Your task to perform on an android device: change notification settings in the gmail app Image 0: 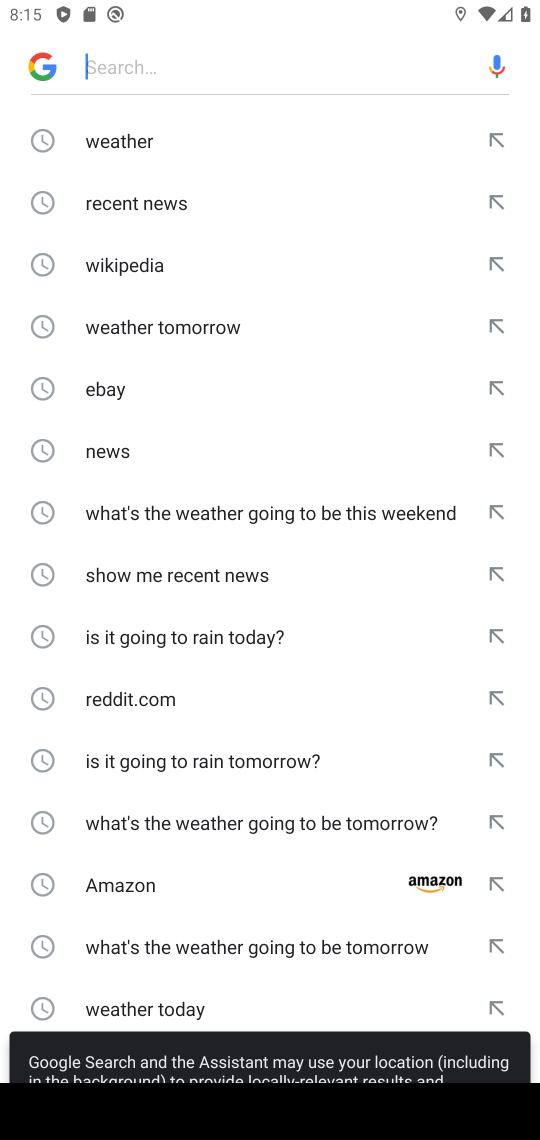
Step 0: press home button
Your task to perform on an android device: change notification settings in the gmail app Image 1: 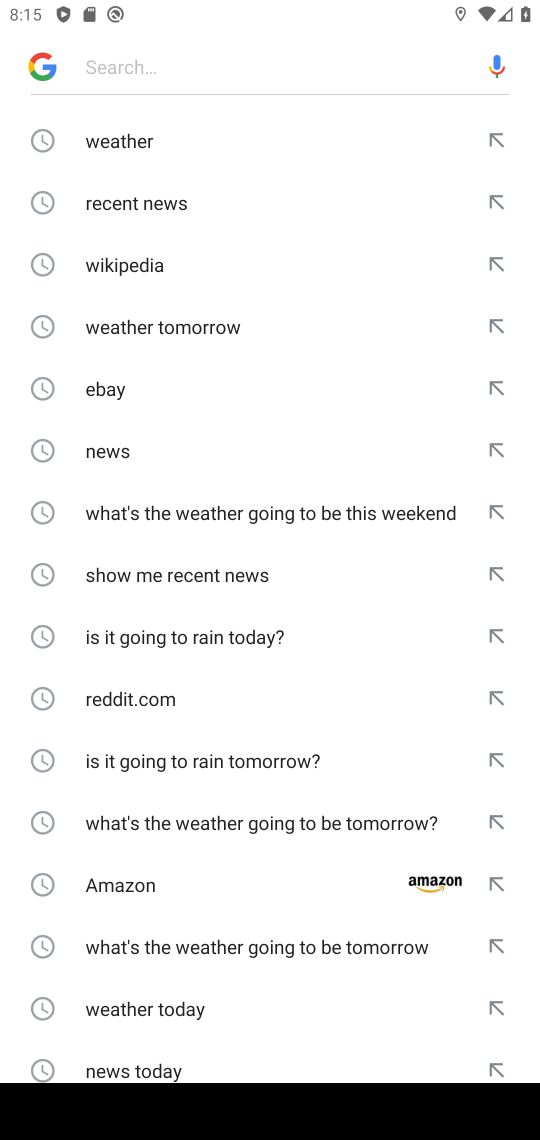
Step 1: click (294, 103)
Your task to perform on an android device: change notification settings in the gmail app Image 2: 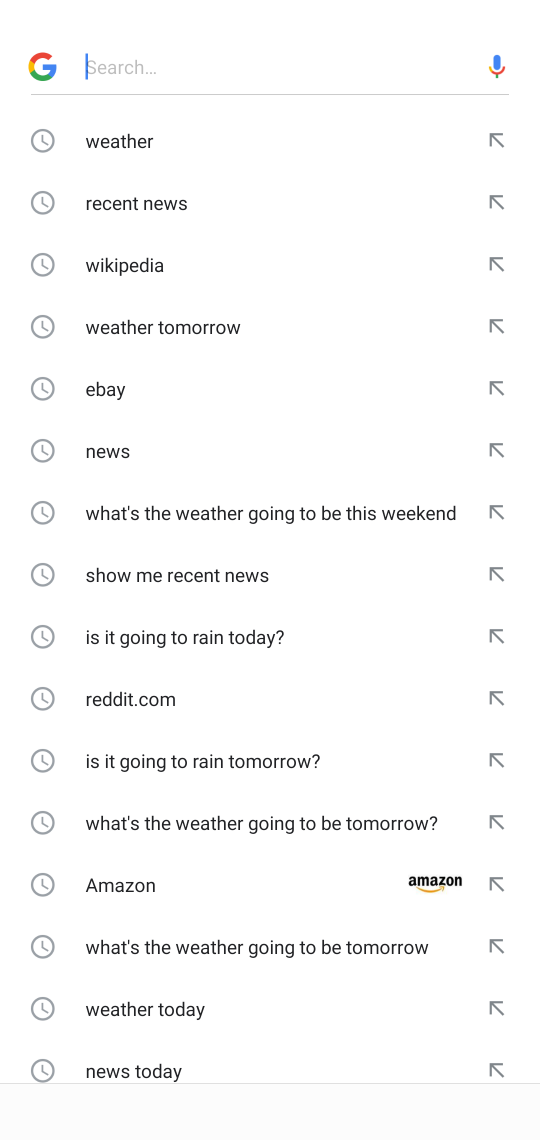
Step 2: drag from (255, 731) to (289, 234)
Your task to perform on an android device: change notification settings in the gmail app Image 3: 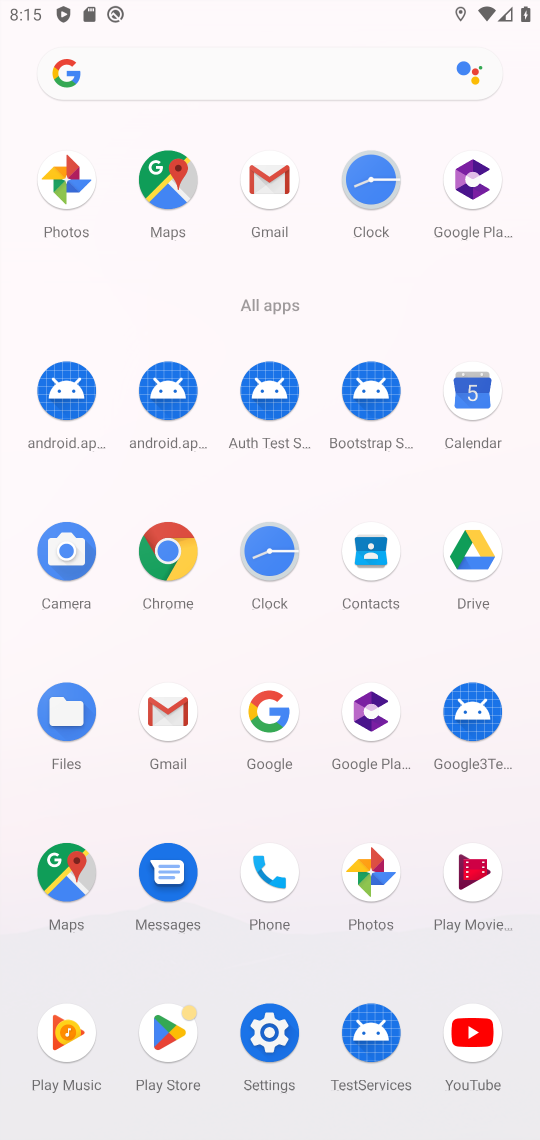
Step 3: drag from (279, 892) to (304, 330)
Your task to perform on an android device: change notification settings in the gmail app Image 4: 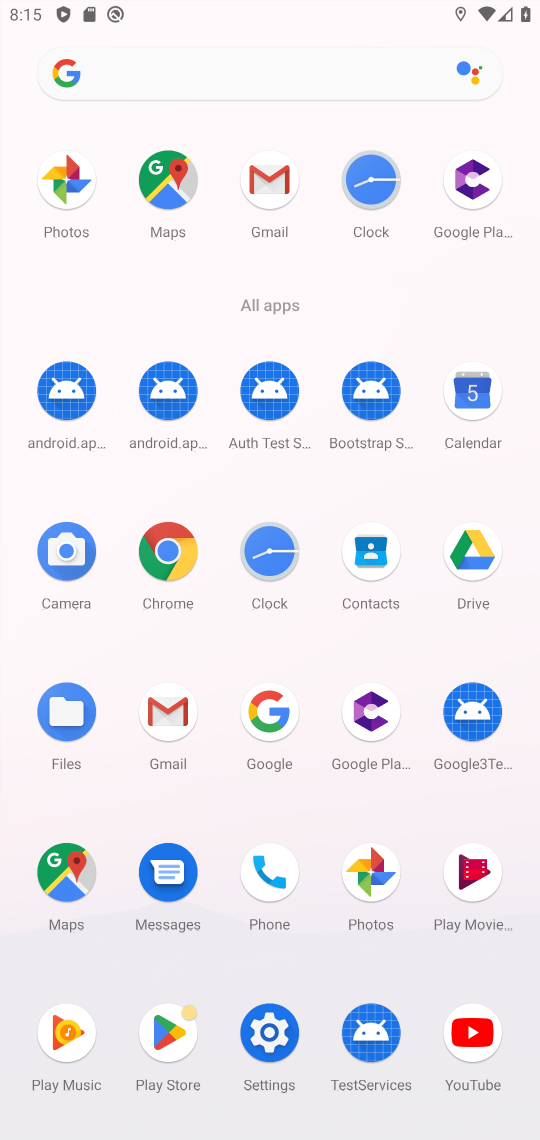
Step 4: click (165, 702)
Your task to perform on an android device: change notification settings in the gmail app Image 5: 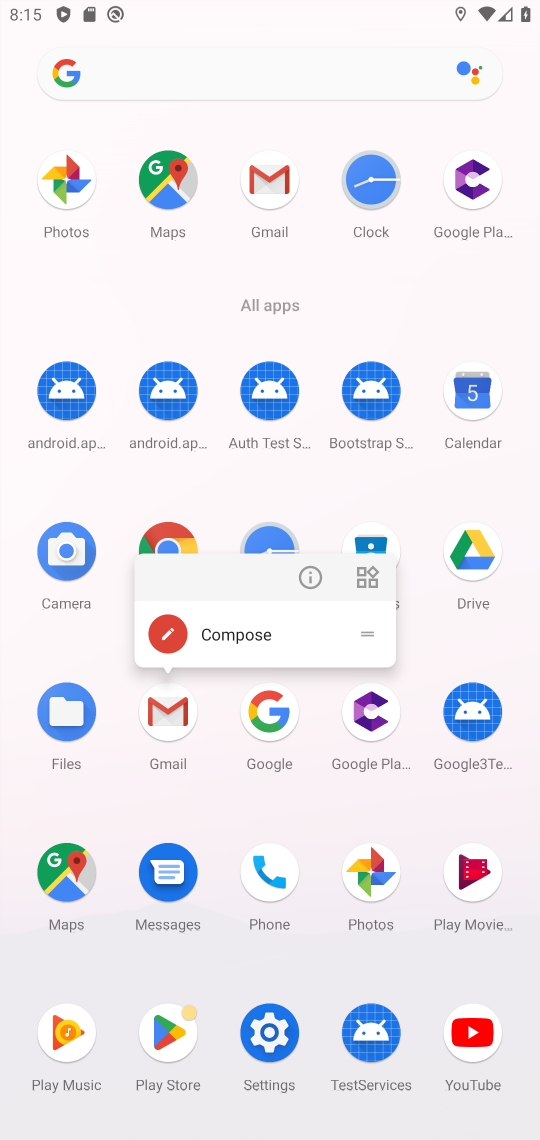
Step 5: click (300, 578)
Your task to perform on an android device: change notification settings in the gmail app Image 6: 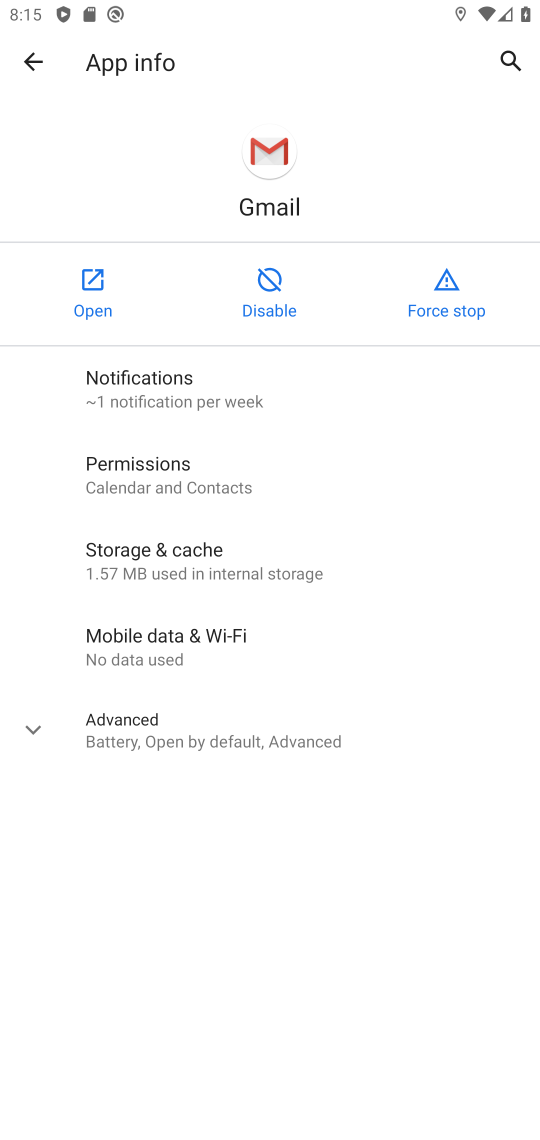
Step 6: click (115, 300)
Your task to perform on an android device: change notification settings in the gmail app Image 7: 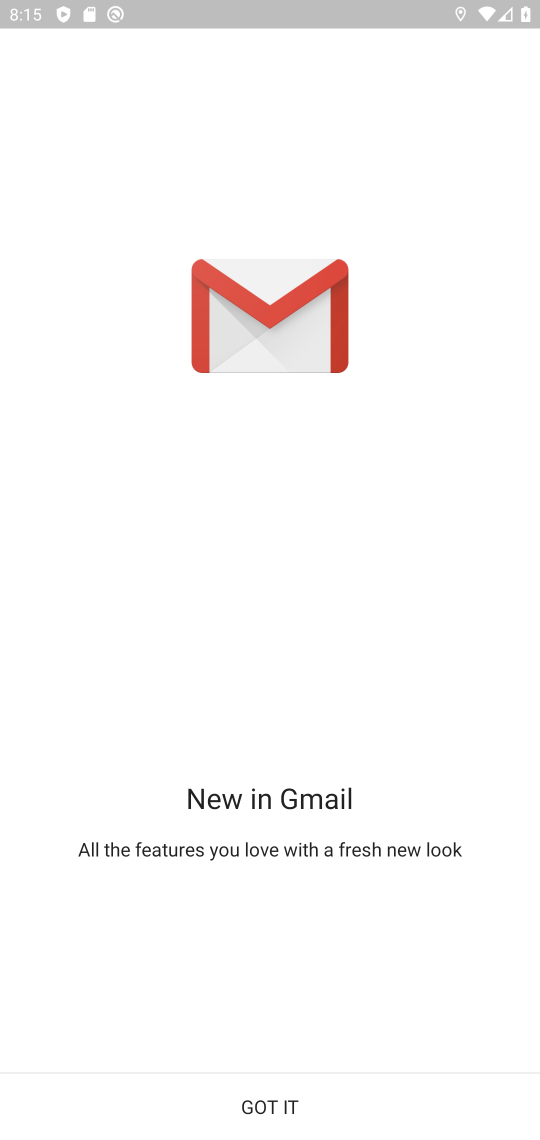
Step 7: click (252, 1107)
Your task to perform on an android device: change notification settings in the gmail app Image 8: 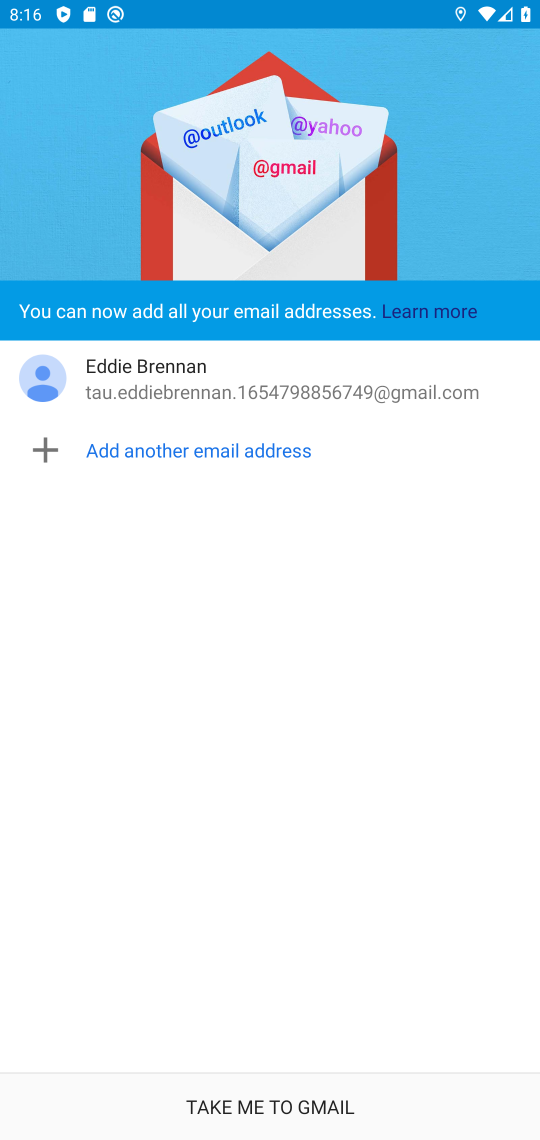
Step 8: click (272, 1111)
Your task to perform on an android device: change notification settings in the gmail app Image 9: 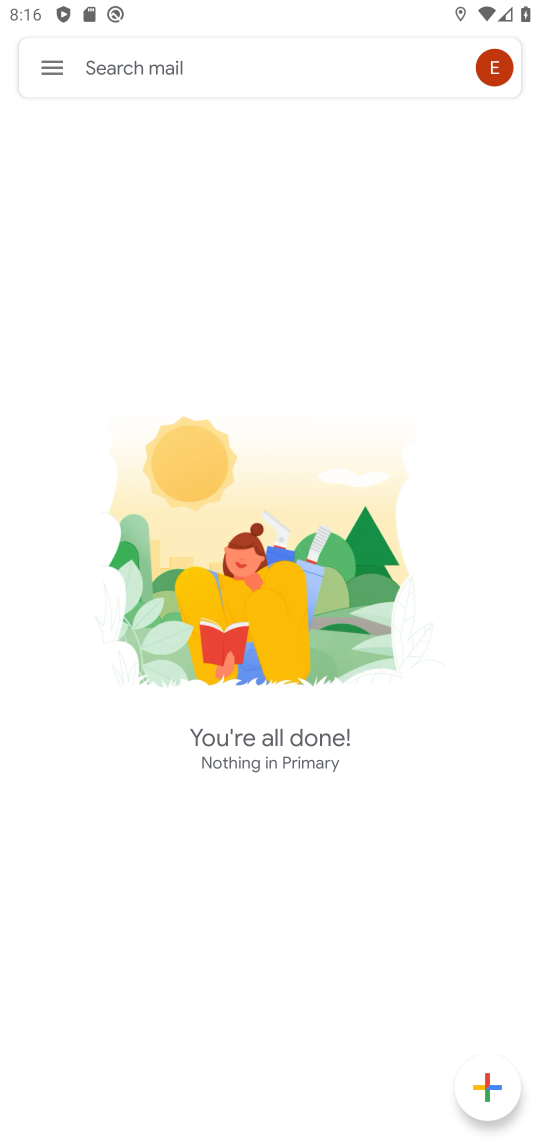
Step 9: drag from (139, 934) to (191, 453)
Your task to perform on an android device: change notification settings in the gmail app Image 10: 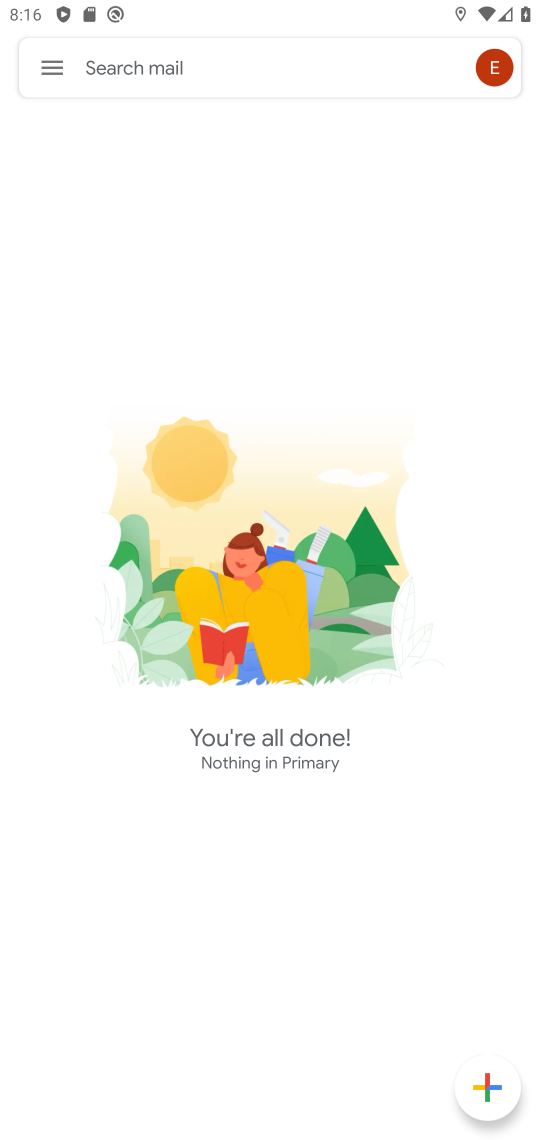
Step 10: drag from (268, 903) to (285, 376)
Your task to perform on an android device: change notification settings in the gmail app Image 11: 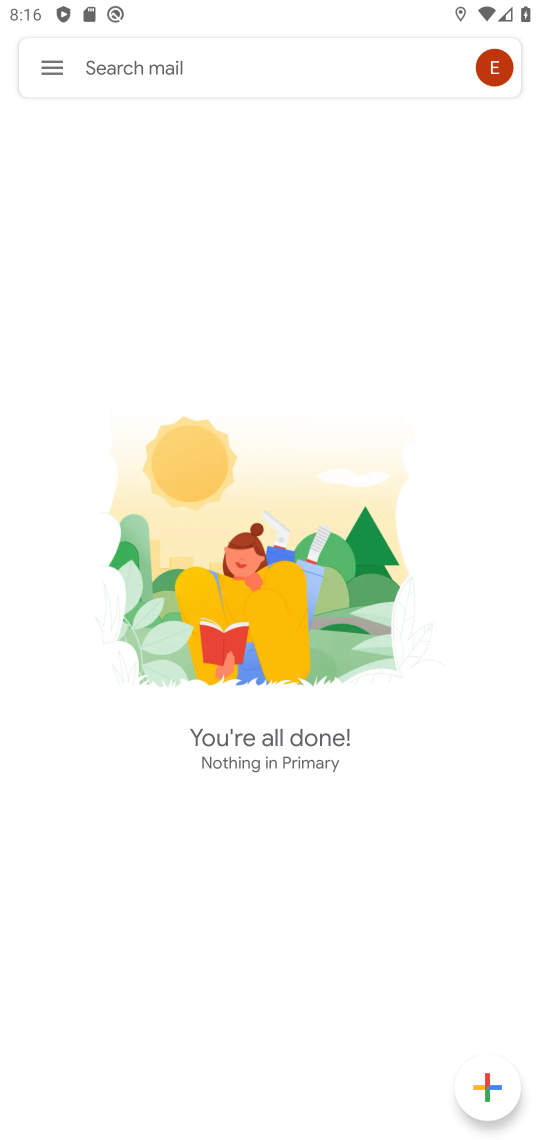
Step 11: drag from (283, 883) to (246, 468)
Your task to perform on an android device: change notification settings in the gmail app Image 12: 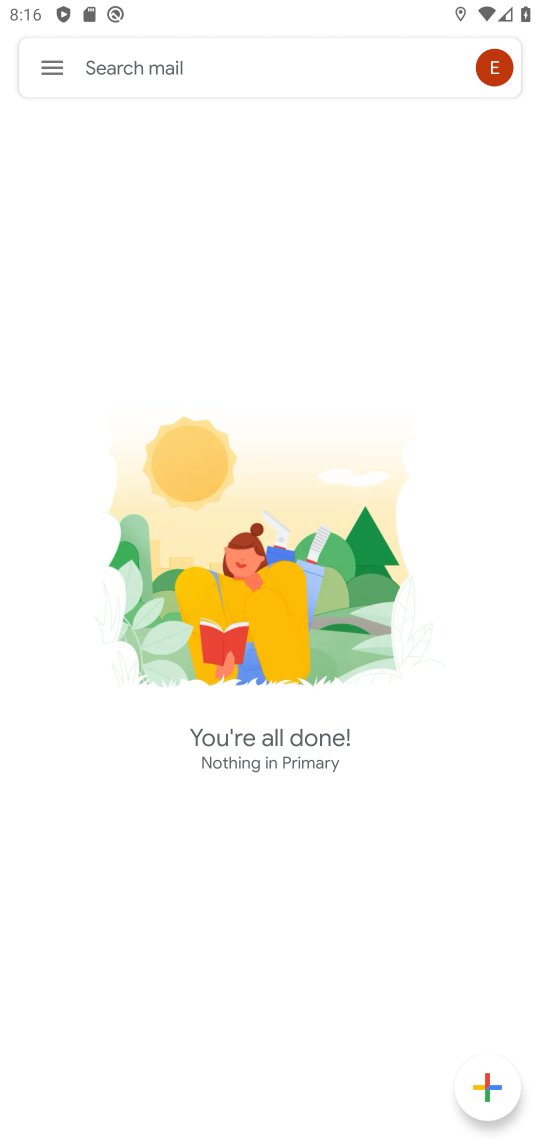
Step 12: click (37, 68)
Your task to perform on an android device: change notification settings in the gmail app Image 13: 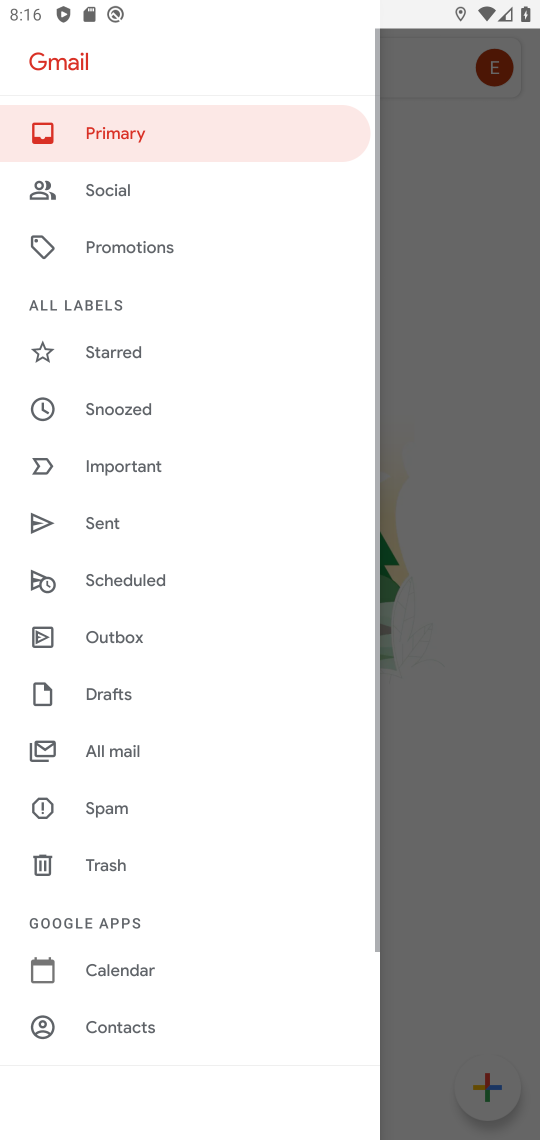
Step 13: drag from (163, 924) to (161, 221)
Your task to perform on an android device: change notification settings in the gmail app Image 14: 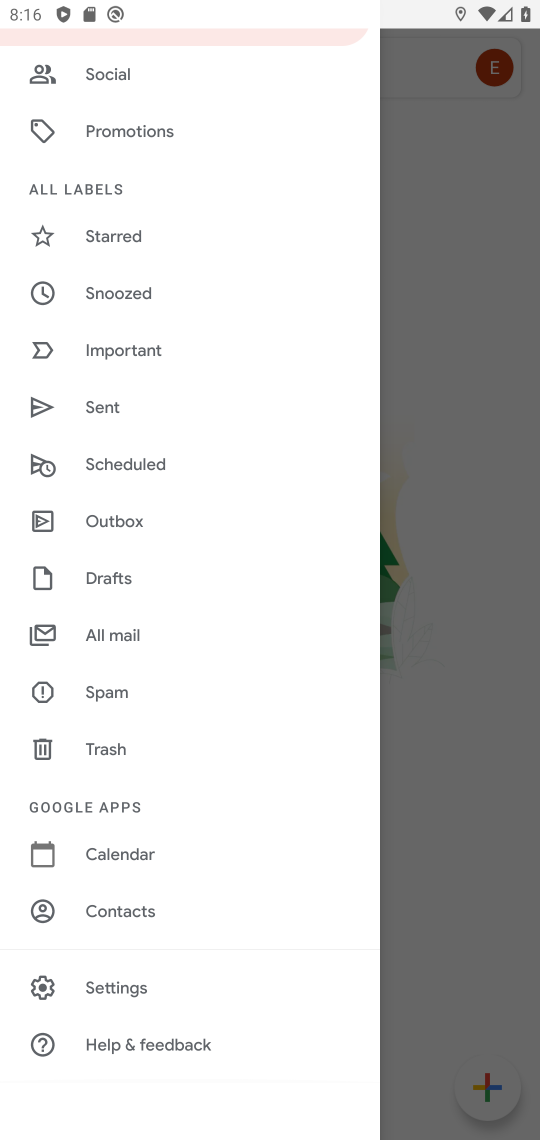
Step 14: click (129, 987)
Your task to perform on an android device: change notification settings in the gmail app Image 15: 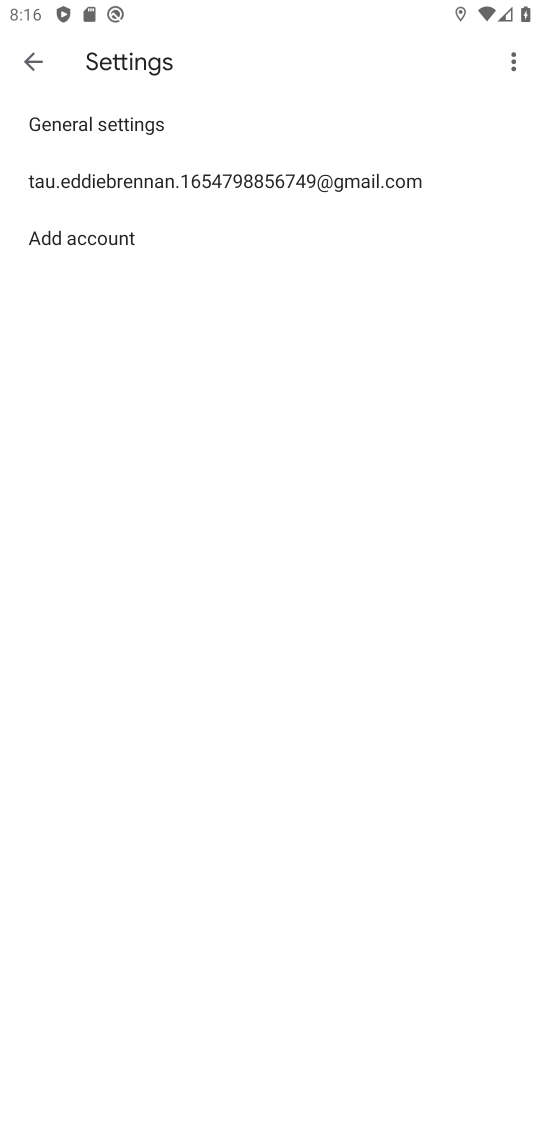
Step 15: click (196, 182)
Your task to perform on an android device: change notification settings in the gmail app Image 16: 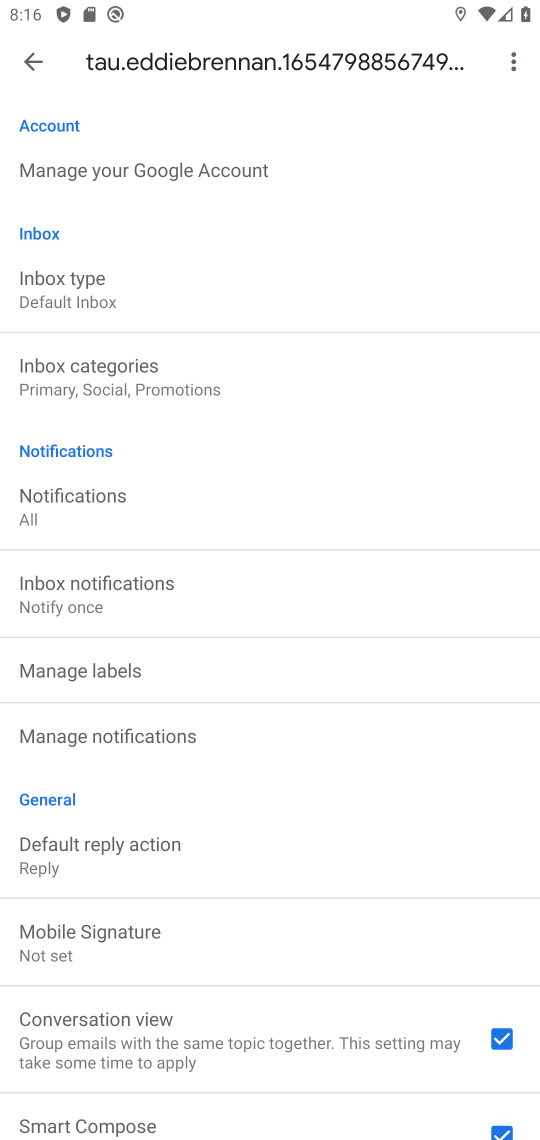
Step 16: click (104, 720)
Your task to perform on an android device: change notification settings in the gmail app Image 17: 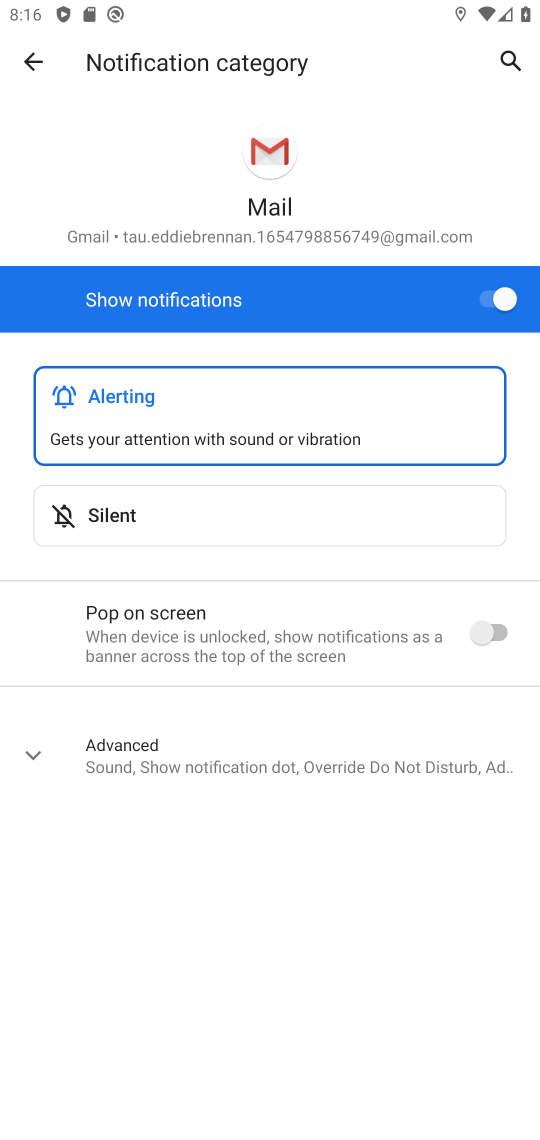
Step 17: click (480, 297)
Your task to perform on an android device: change notification settings in the gmail app Image 18: 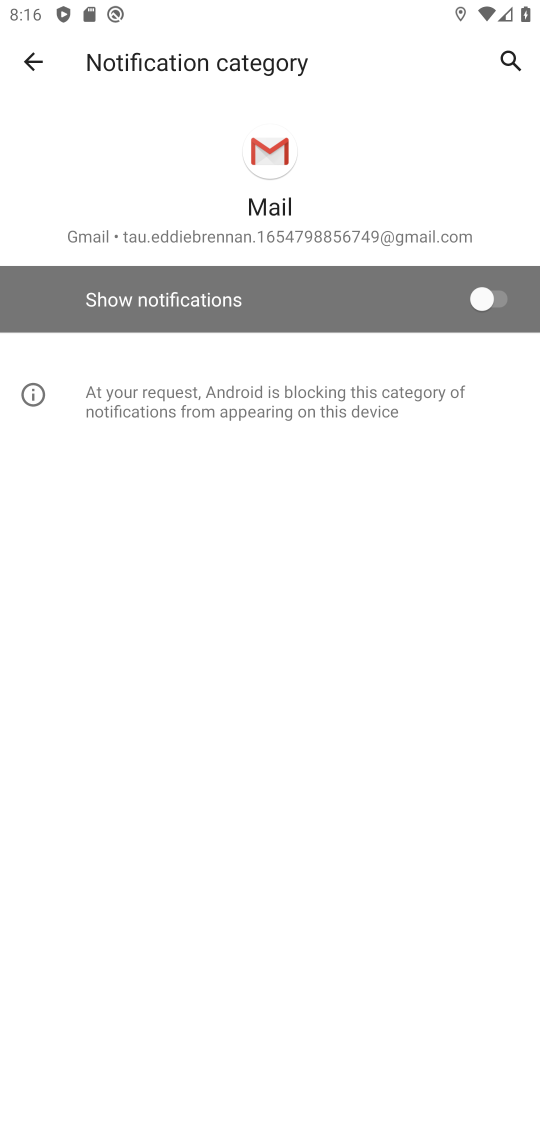
Step 18: task complete